Your task to perform on an android device: What's the weather going to be tomorrow? Image 0: 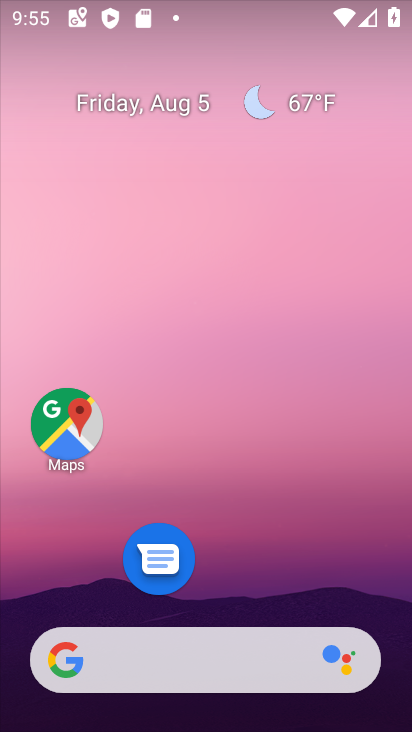
Step 0: drag from (204, 696) to (221, 289)
Your task to perform on an android device: What's the weather going to be tomorrow? Image 1: 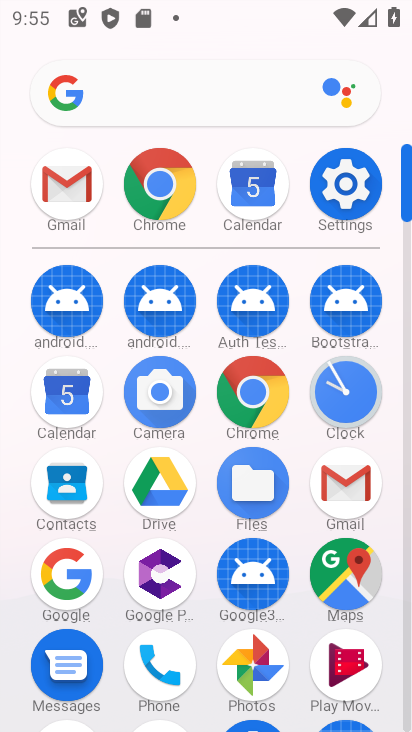
Step 1: click (80, 571)
Your task to perform on an android device: What's the weather going to be tomorrow? Image 2: 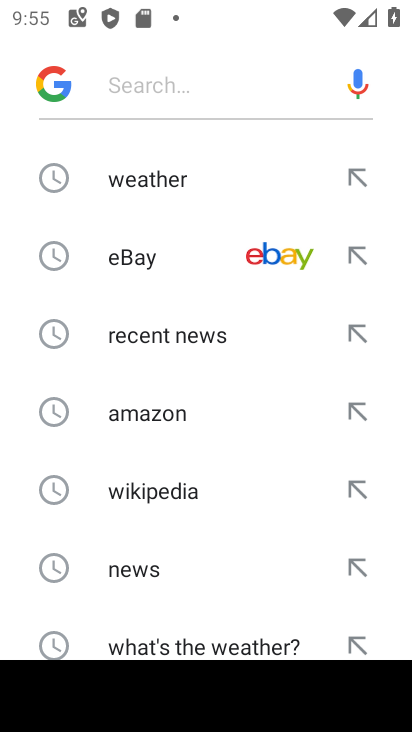
Step 2: click (168, 178)
Your task to perform on an android device: What's the weather going to be tomorrow? Image 3: 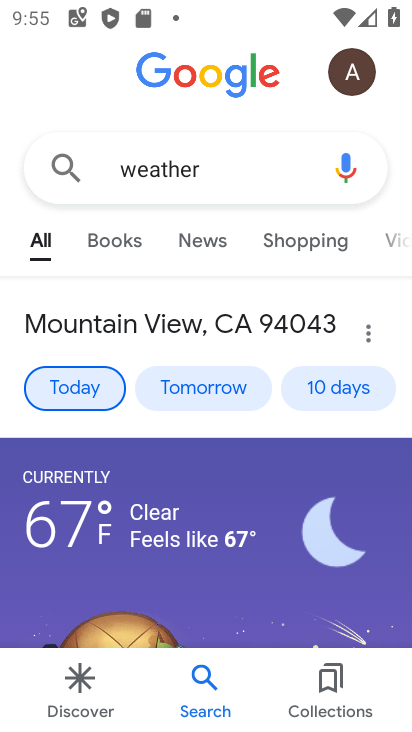
Step 3: click (175, 393)
Your task to perform on an android device: What's the weather going to be tomorrow? Image 4: 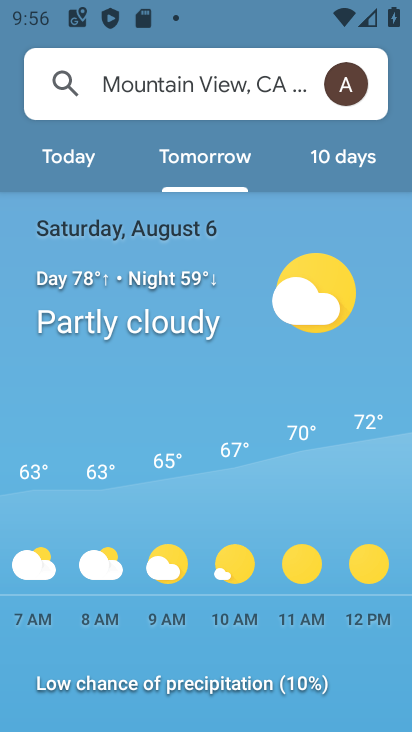
Step 4: task complete